Your task to perform on an android device: Open Reddit.com Image 0: 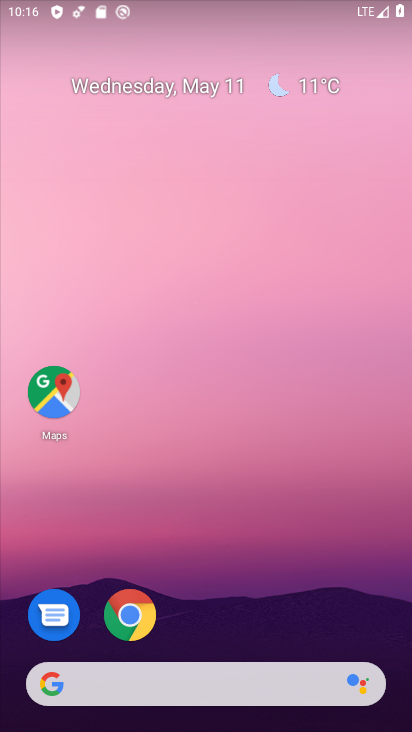
Step 0: click (129, 624)
Your task to perform on an android device: Open Reddit.com Image 1: 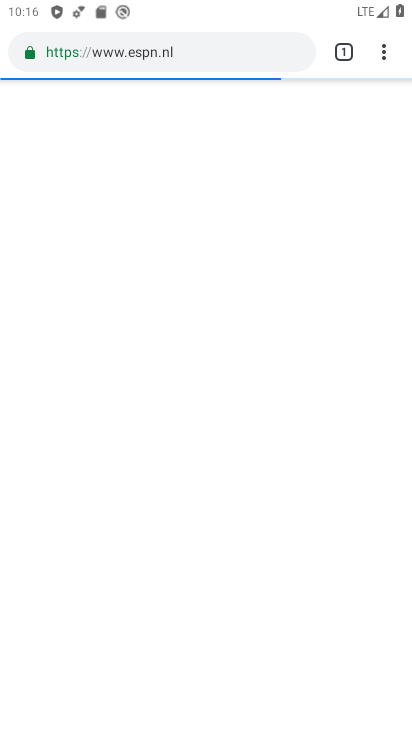
Step 1: click (149, 51)
Your task to perform on an android device: Open Reddit.com Image 2: 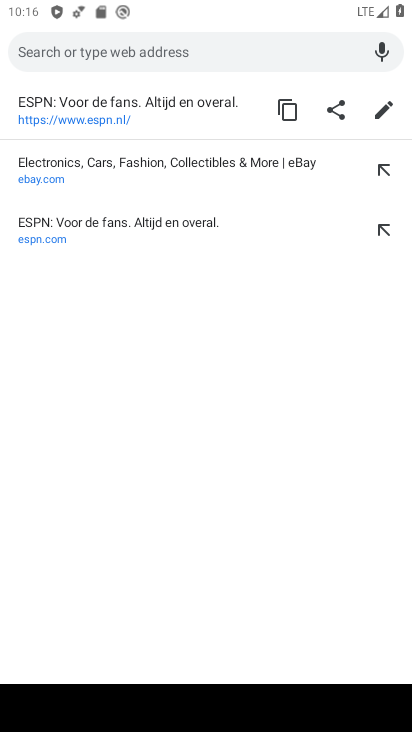
Step 2: type "reddit.com"
Your task to perform on an android device: Open Reddit.com Image 3: 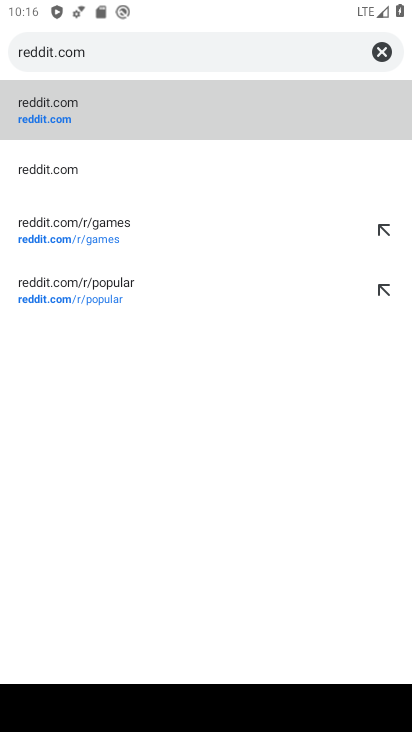
Step 3: click (38, 114)
Your task to perform on an android device: Open Reddit.com Image 4: 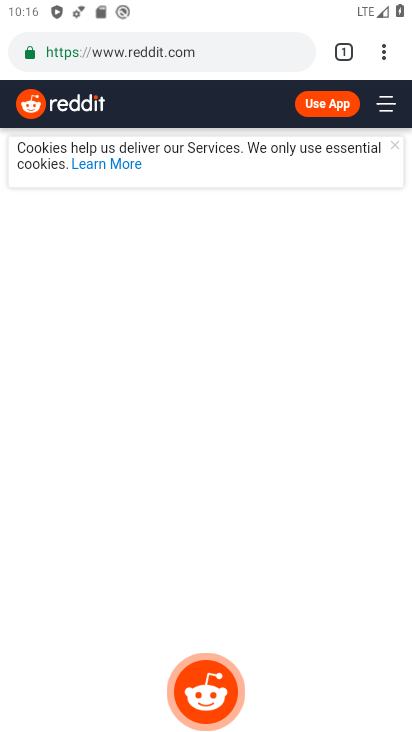
Step 4: task complete